Your task to perform on an android device: Open network settings Image 0: 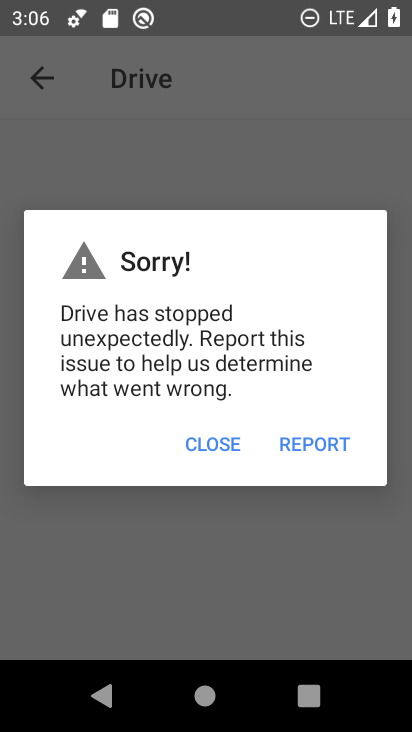
Step 0: press home button
Your task to perform on an android device: Open network settings Image 1: 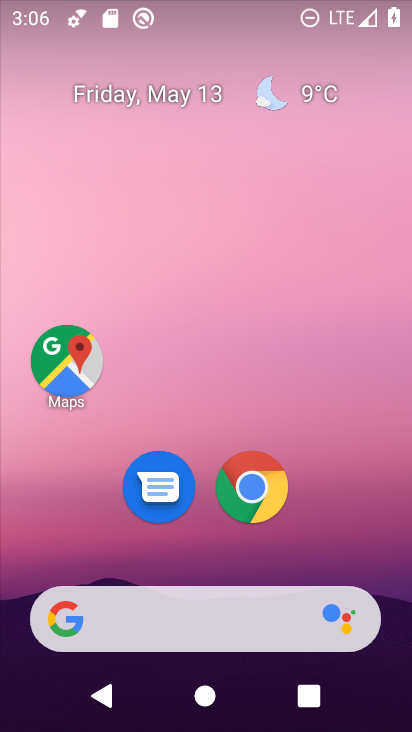
Step 1: drag from (196, 617) to (171, 15)
Your task to perform on an android device: Open network settings Image 2: 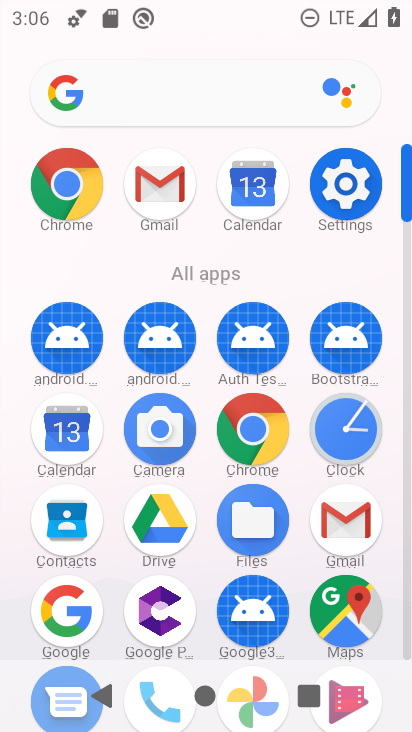
Step 2: click (349, 194)
Your task to perform on an android device: Open network settings Image 3: 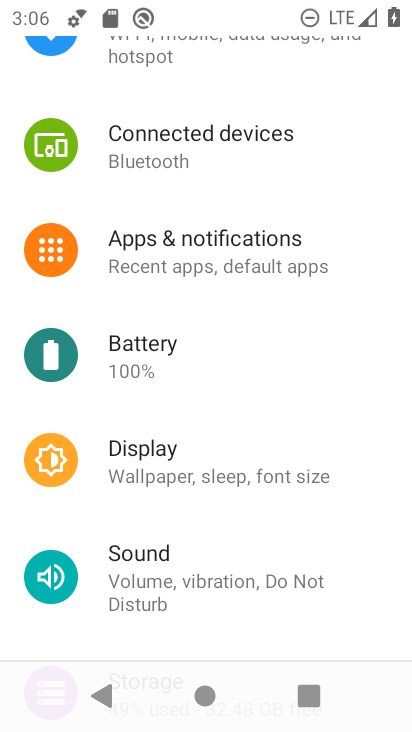
Step 3: drag from (231, 120) to (189, 632)
Your task to perform on an android device: Open network settings Image 4: 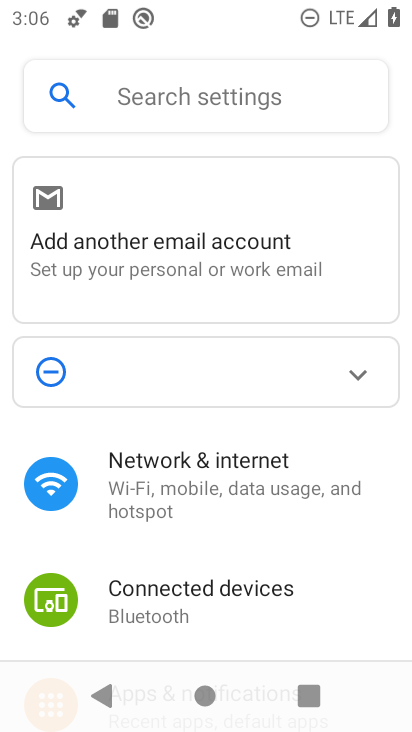
Step 4: click (224, 499)
Your task to perform on an android device: Open network settings Image 5: 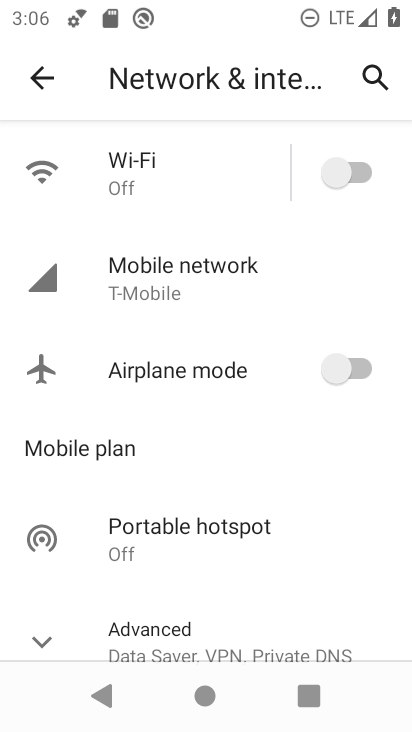
Step 5: task complete